Your task to perform on an android device: remove spam from my inbox in the gmail app Image 0: 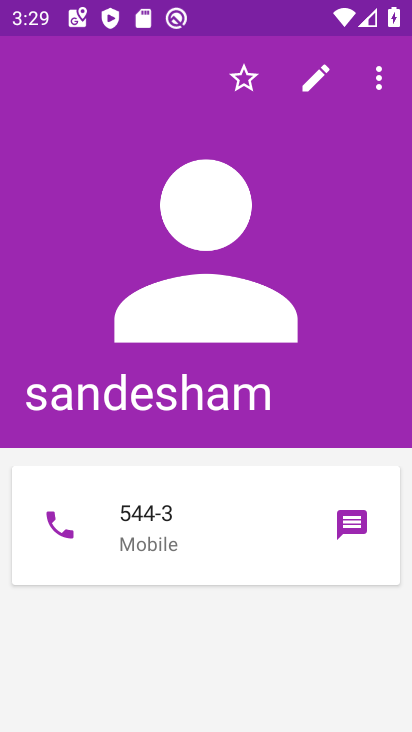
Step 0: press home button
Your task to perform on an android device: remove spam from my inbox in the gmail app Image 1: 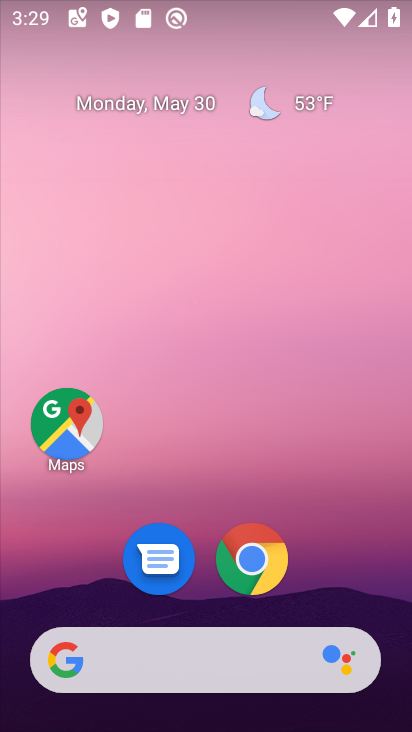
Step 1: drag from (217, 726) to (197, 61)
Your task to perform on an android device: remove spam from my inbox in the gmail app Image 2: 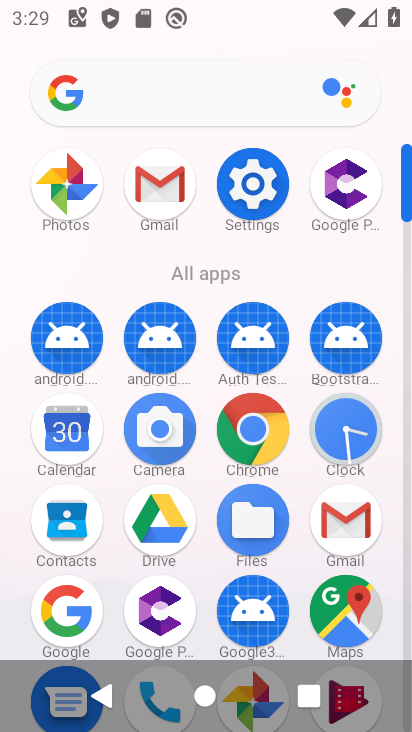
Step 2: click (344, 517)
Your task to perform on an android device: remove spam from my inbox in the gmail app Image 3: 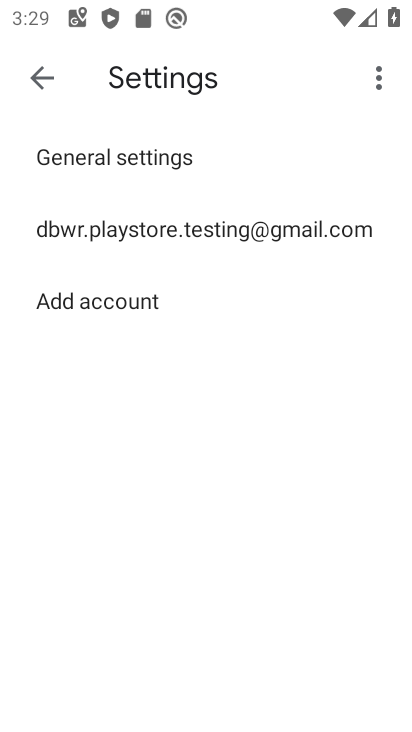
Step 3: click (146, 224)
Your task to perform on an android device: remove spam from my inbox in the gmail app Image 4: 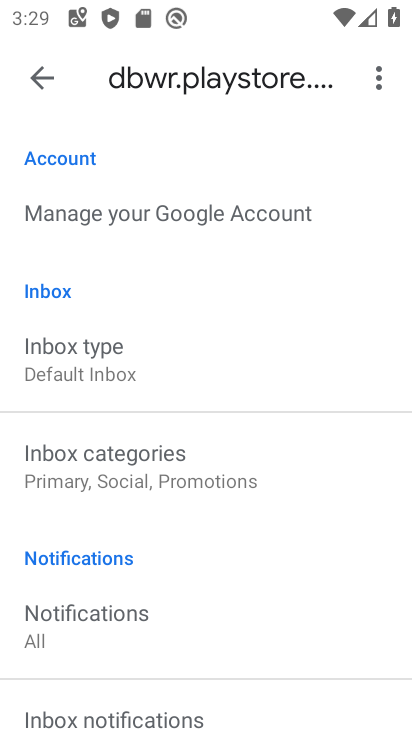
Step 4: drag from (150, 155) to (180, 577)
Your task to perform on an android device: remove spam from my inbox in the gmail app Image 5: 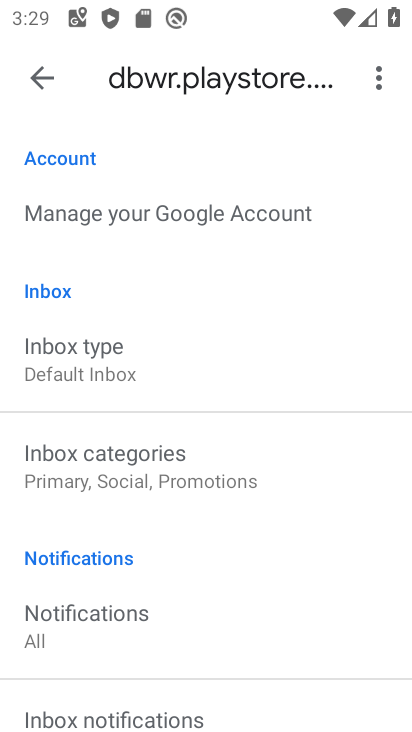
Step 5: click (35, 69)
Your task to perform on an android device: remove spam from my inbox in the gmail app Image 6: 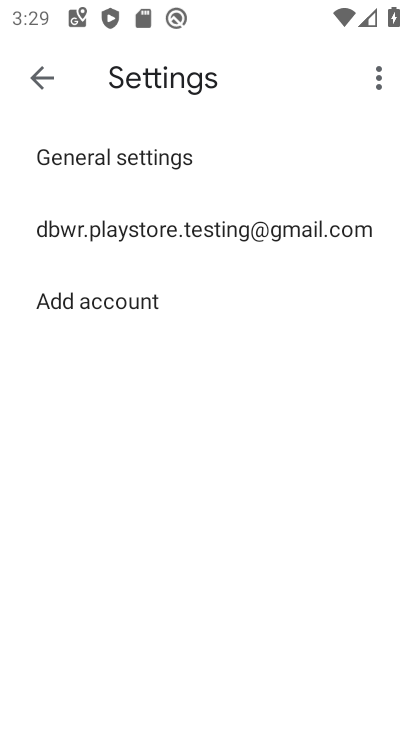
Step 6: click (35, 65)
Your task to perform on an android device: remove spam from my inbox in the gmail app Image 7: 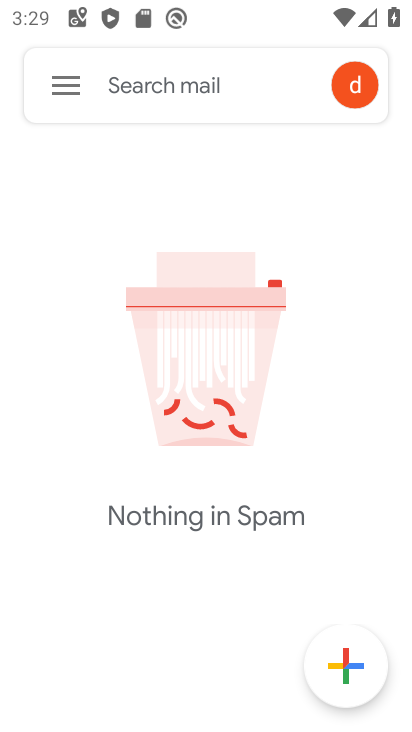
Step 7: click (55, 80)
Your task to perform on an android device: remove spam from my inbox in the gmail app Image 8: 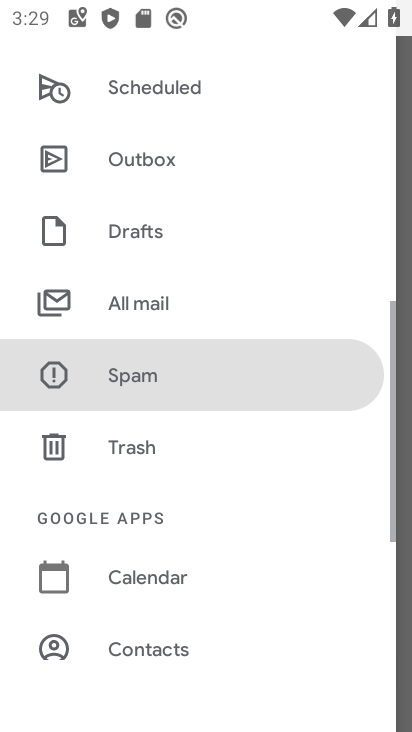
Step 8: drag from (169, 103) to (211, 679)
Your task to perform on an android device: remove spam from my inbox in the gmail app Image 9: 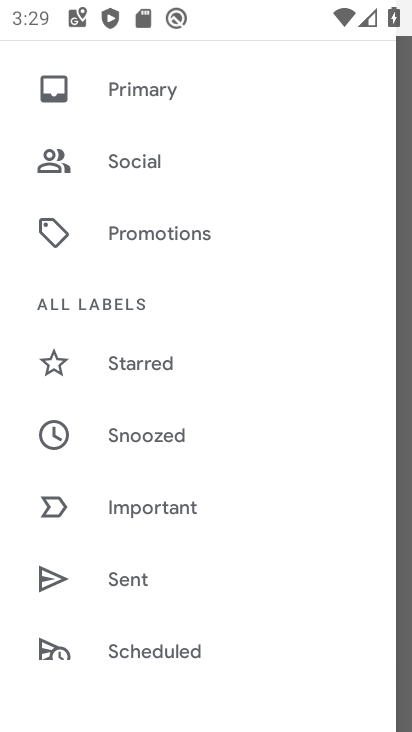
Step 9: drag from (242, 105) to (257, 574)
Your task to perform on an android device: remove spam from my inbox in the gmail app Image 10: 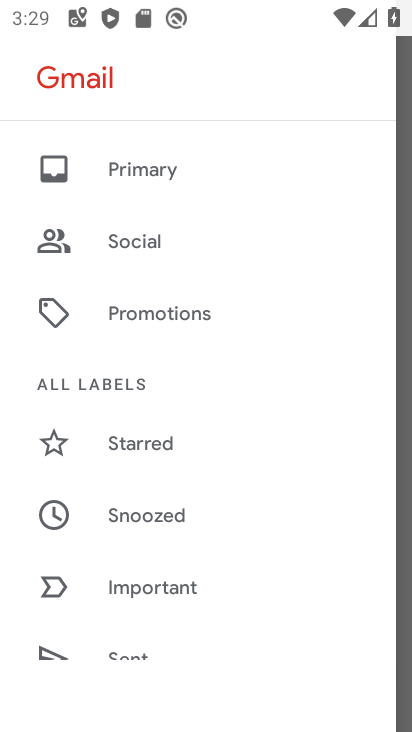
Step 10: click (145, 163)
Your task to perform on an android device: remove spam from my inbox in the gmail app Image 11: 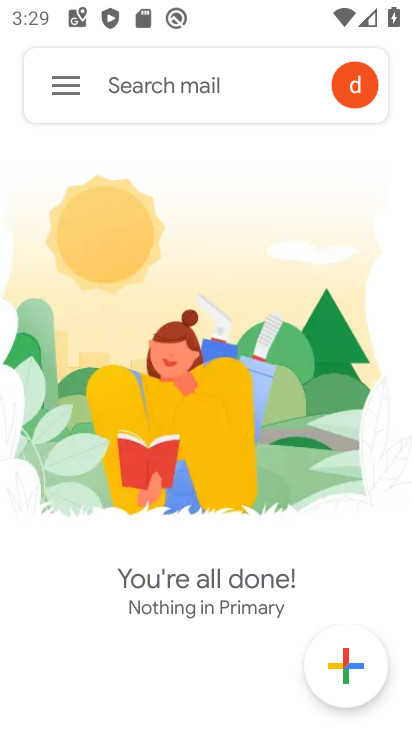
Step 11: task complete